Your task to perform on an android device: Search for the best selling book on Amazon. Image 0: 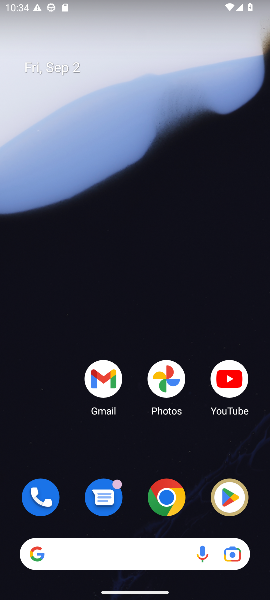
Step 0: click (174, 506)
Your task to perform on an android device: Search for the best selling book on Amazon. Image 1: 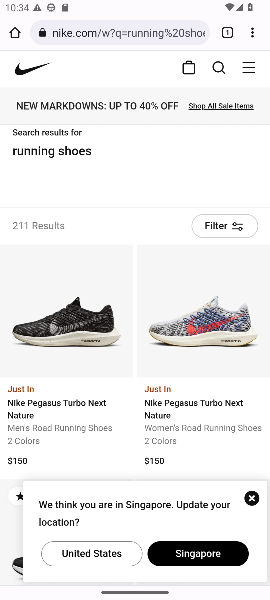
Step 1: click (101, 39)
Your task to perform on an android device: Search for the best selling book on Amazon. Image 2: 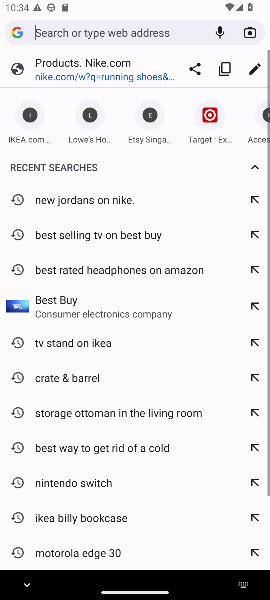
Step 2: type "best selling book on Amazon"
Your task to perform on an android device: Search for the best selling book on Amazon. Image 3: 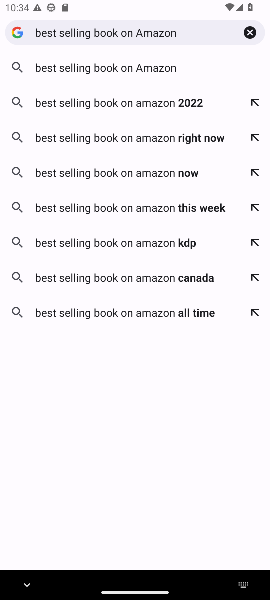
Step 3: click (136, 79)
Your task to perform on an android device: Search for the best selling book on Amazon. Image 4: 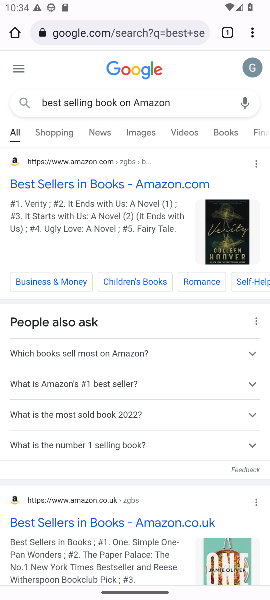
Step 4: click (130, 186)
Your task to perform on an android device: Search for the best selling book on Amazon. Image 5: 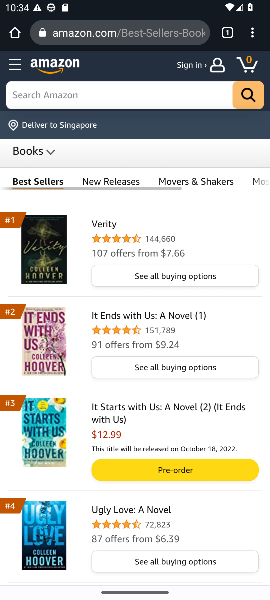
Step 5: task complete